Your task to perform on an android device: choose inbox layout in the gmail app Image 0: 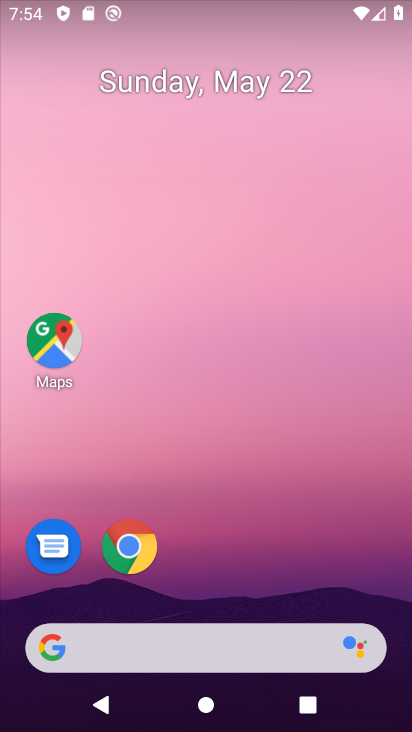
Step 0: drag from (242, 621) to (212, 16)
Your task to perform on an android device: choose inbox layout in the gmail app Image 1: 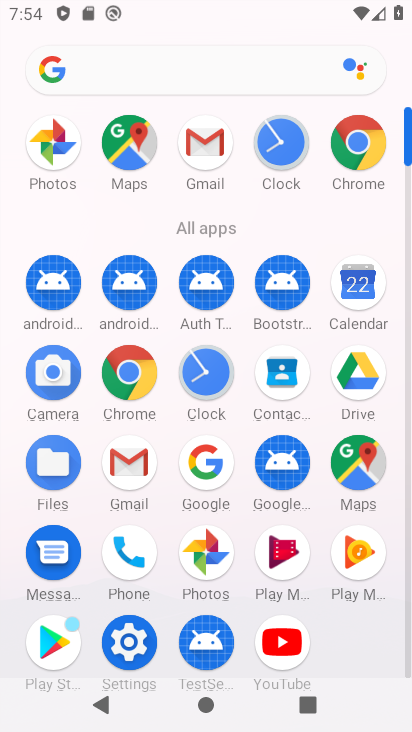
Step 1: click (138, 466)
Your task to perform on an android device: choose inbox layout in the gmail app Image 2: 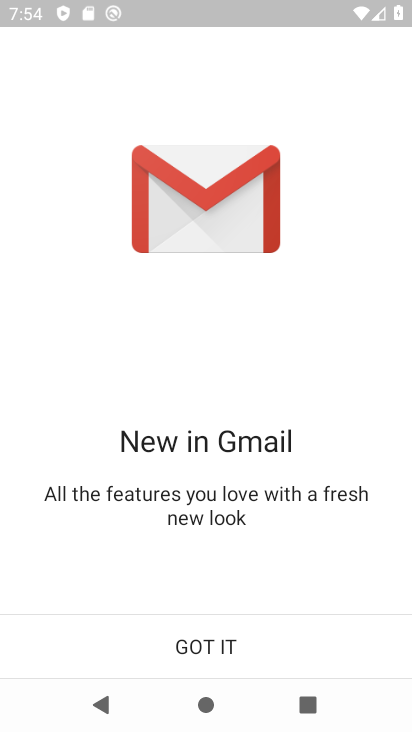
Step 2: click (215, 653)
Your task to perform on an android device: choose inbox layout in the gmail app Image 3: 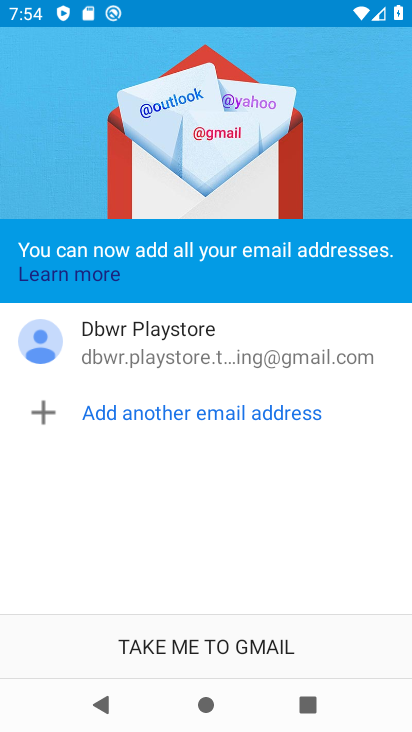
Step 3: click (213, 635)
Your task to perform on an android device: choose inbox layout in the gmail app Image 4: 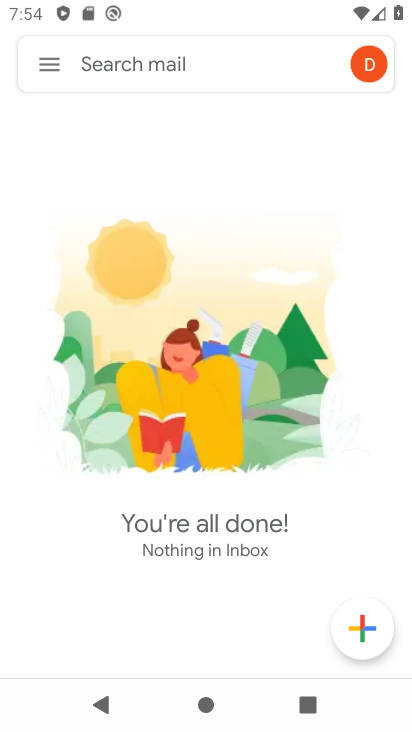
Step 4: click (48, 69)
Your task to perform on an android device: choose inbox layout in the gmail app Image 5: 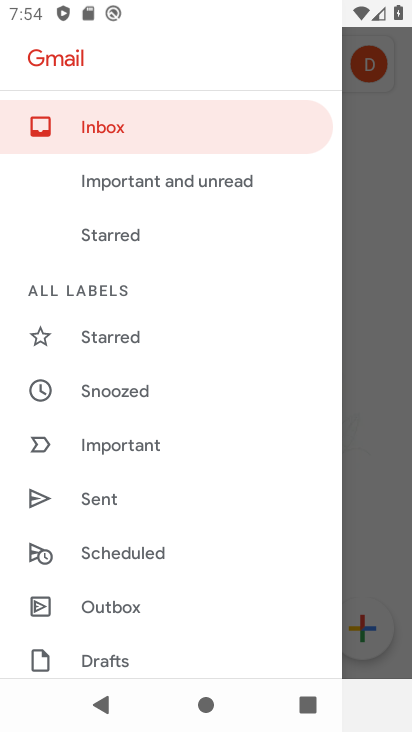
Step 5: drag from (133, 619) to (218, 95)
Your task to perform on an android device: choose inbox layout in the gmail app Image 6: 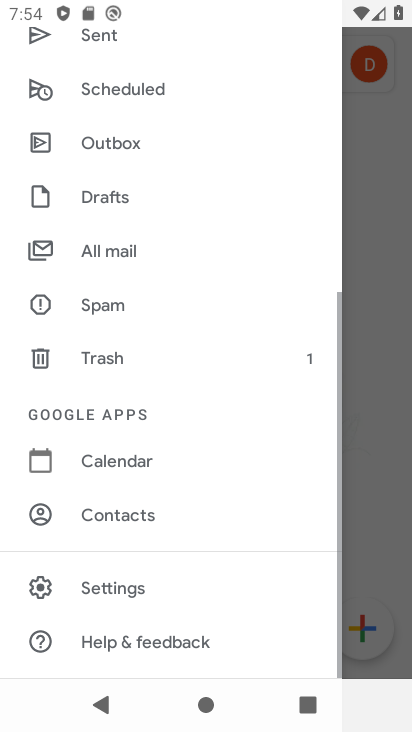
Step 6: drag from (223, 424) to (224, 18)
Your task to perform on an android device: choose inbox layout in the gmail app Image 7: 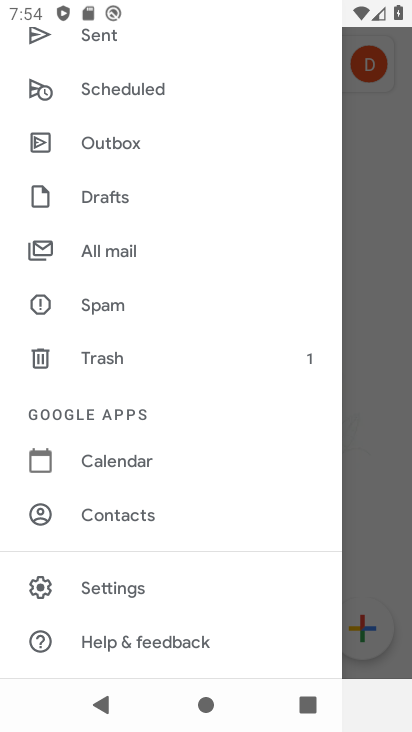
Step 7: click (110, 245)
Your task to perform on an android device: choose inbox layout in the gmail app Image 8: 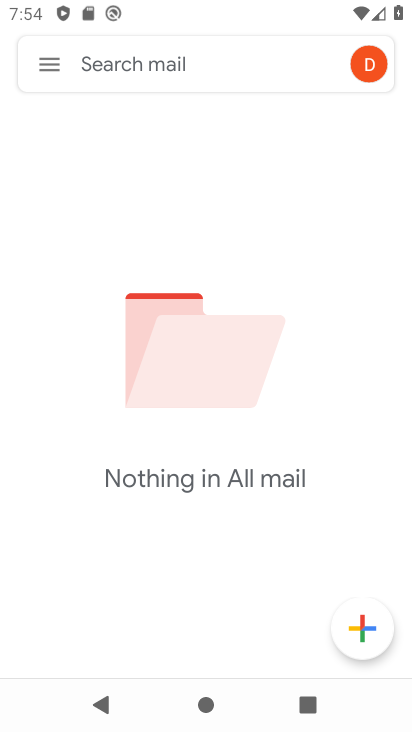
Step 8: click (43, 65)
Your task to perform on an android device: choose inbox layout in the gmail app Image 9: 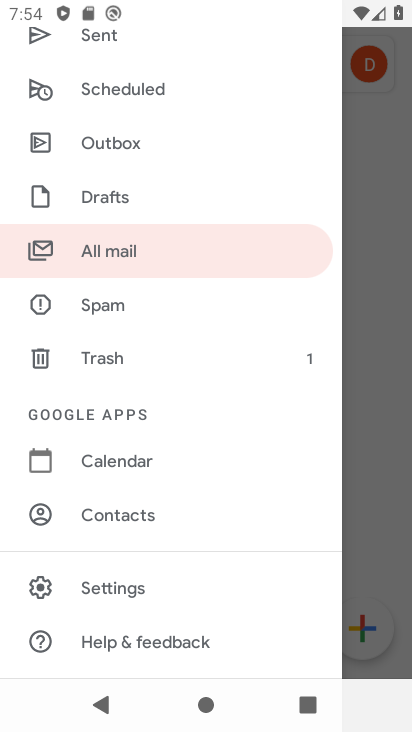
Step 9: task complete